Your task to perform on an android device: What's the news about the US? Image 0: 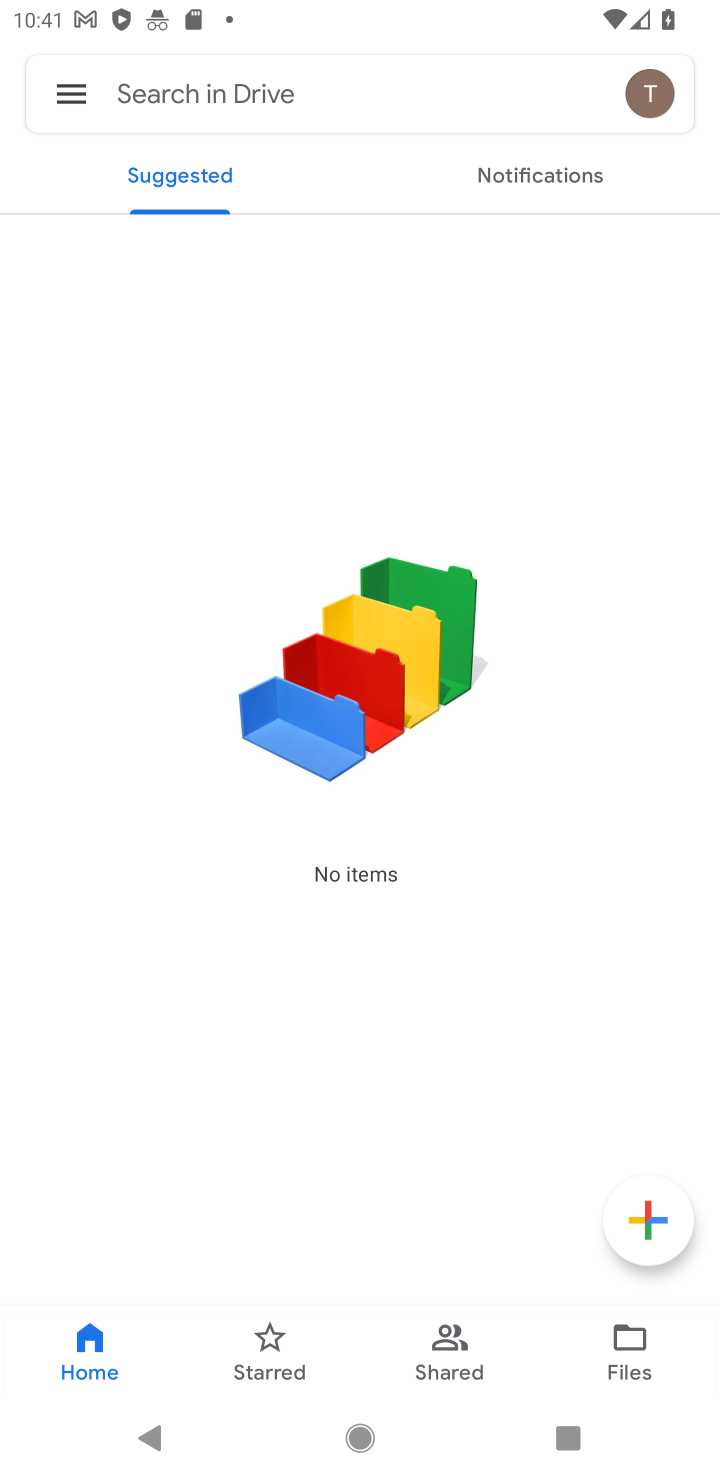
Step 0: press home button
Your task to perform on an android device: What's the news about the US? Image 1: 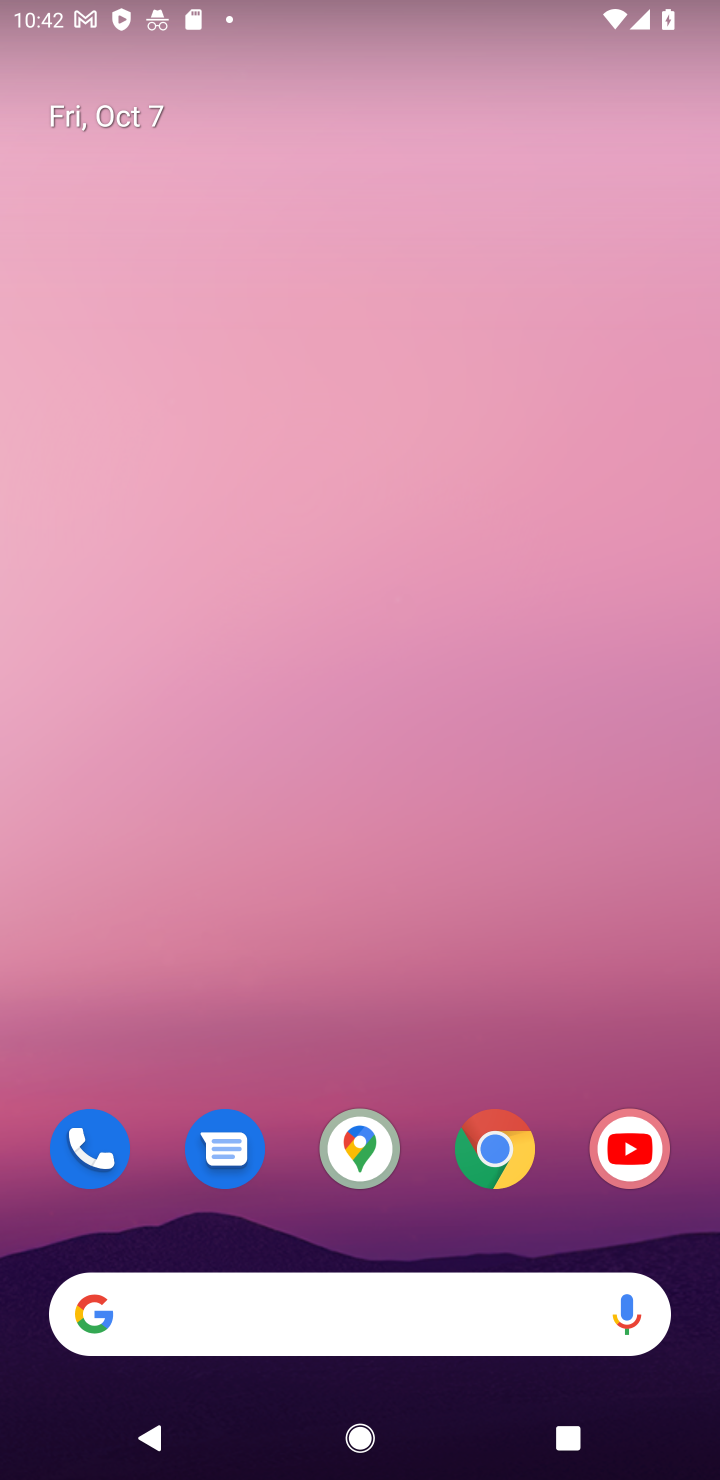
Step 1: click (271, 1295)
Your task to perform on an android device: What's the news about the US? Image 2: 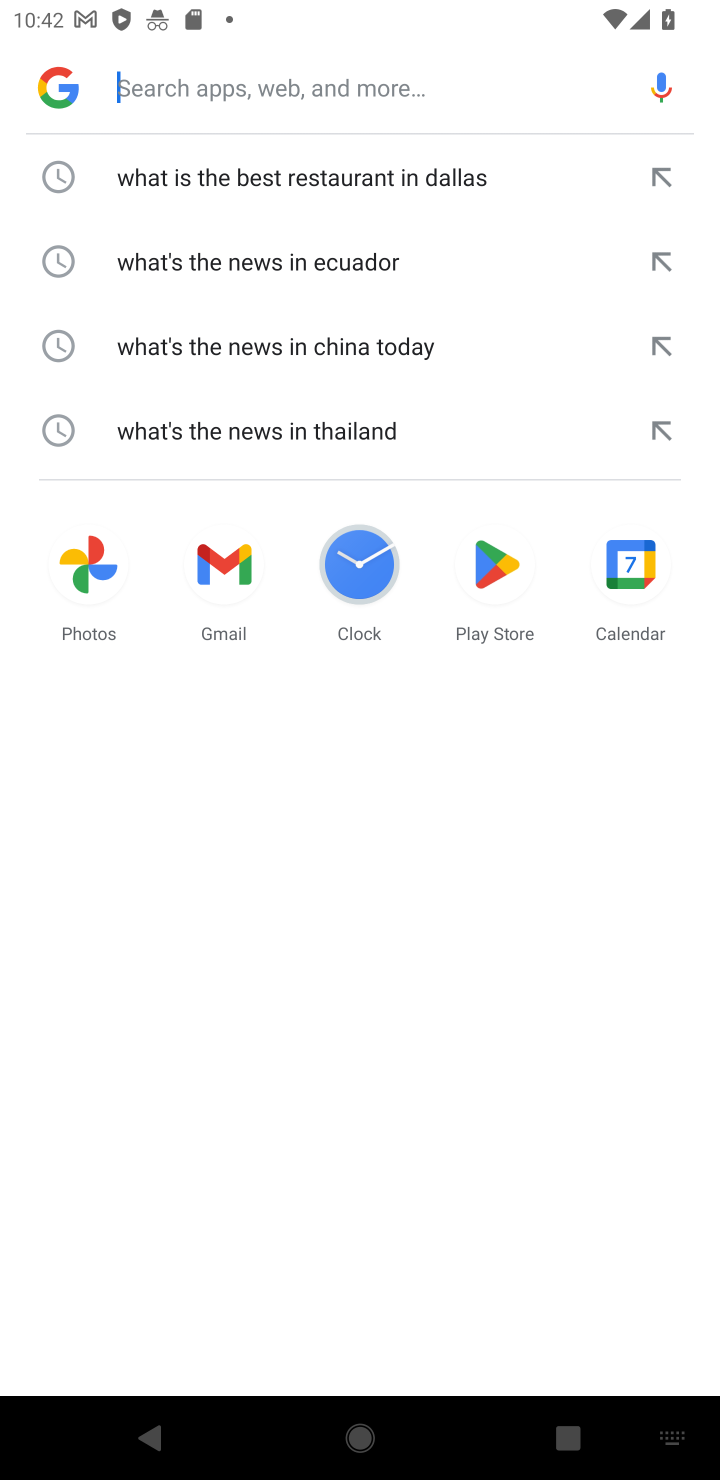
Step 2: type "What's the news about the US?"
Your task to perform on an android device: What's the news about the US? Image 3: 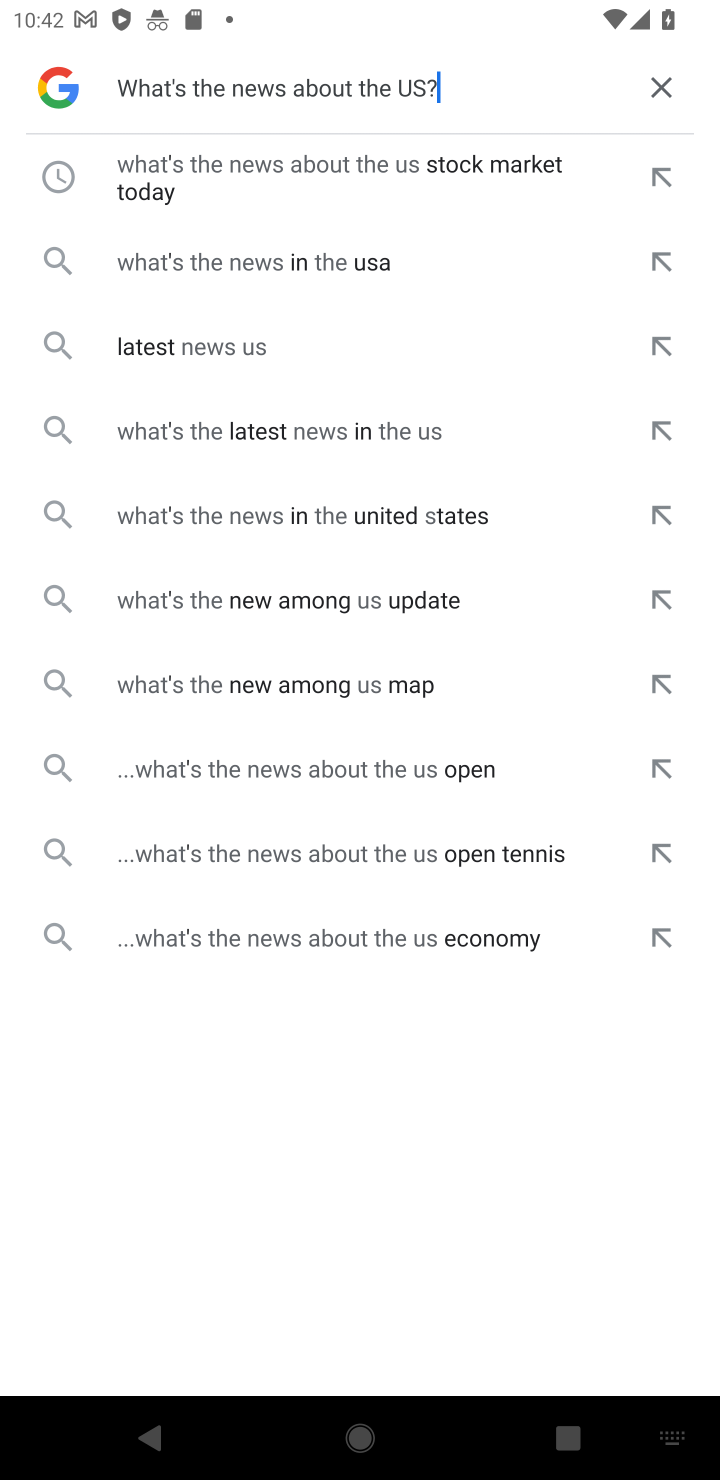
Step 3: click (312, 201)
Your task to perform on an android device: What's the news about the US? Image 4: 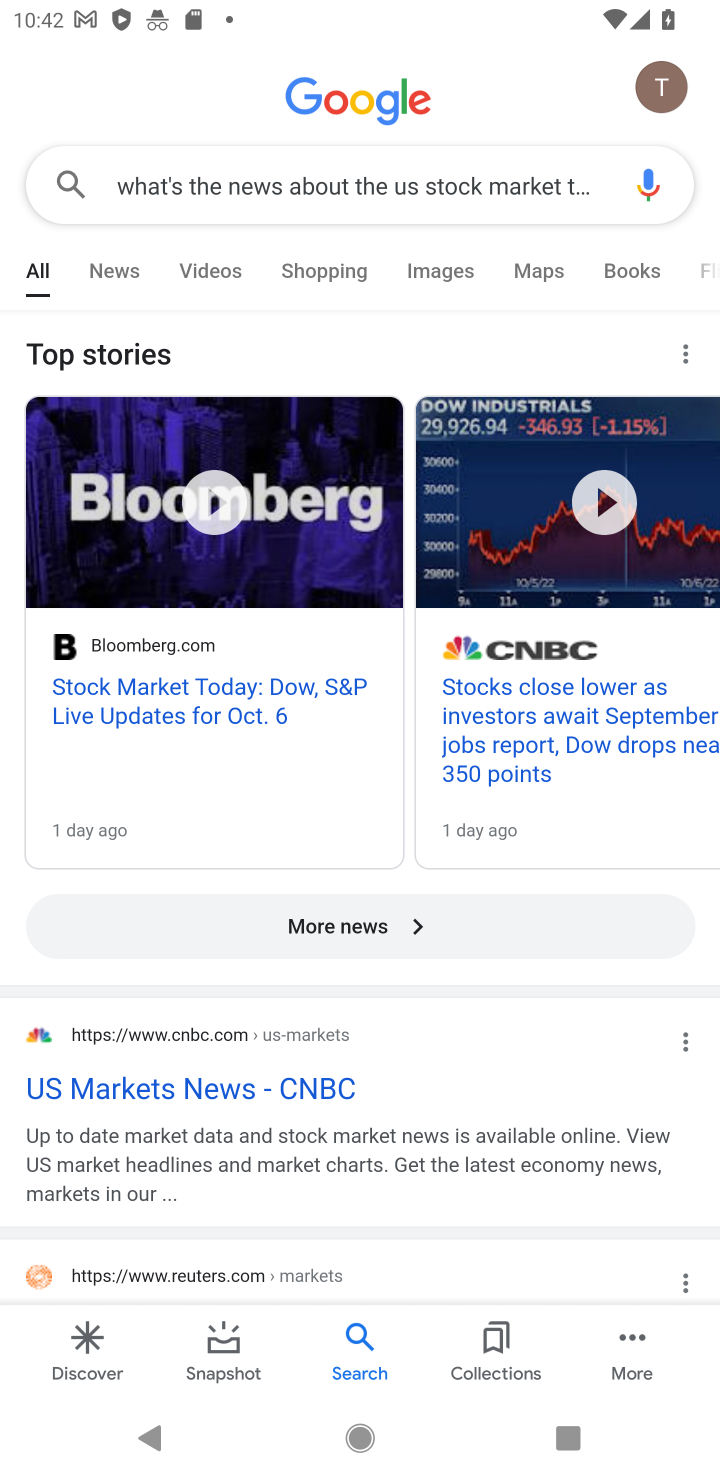
Step 4: task complete